Your task to perform on an android device: Open Youtube and go to the subscriptions tab Image 0: 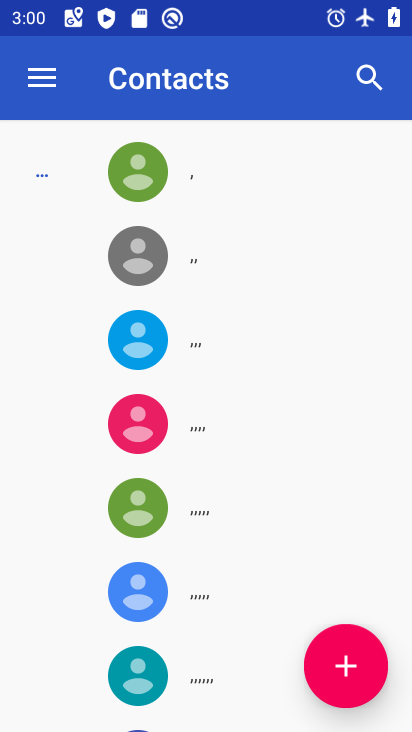
Step 0: press home button
Your task to perform on an android device: Open Youtube and go to the subscriptions tab Image 1: 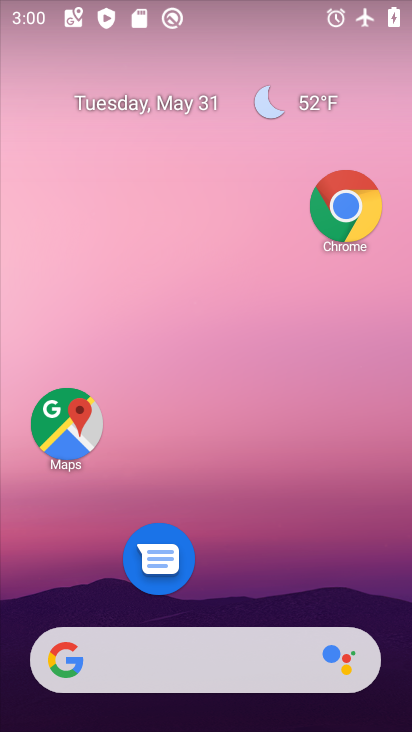
Step 1: drag from (262, 591) to (204, 150)
Your task to perform on an android device: Open Youtube and go to the subscriptions tab Image 2: 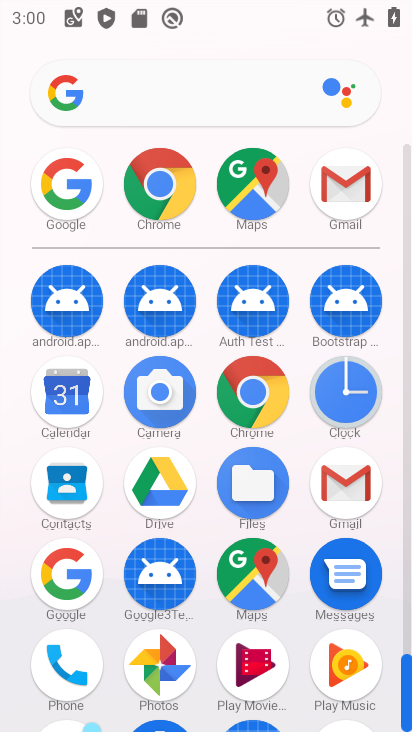
Step 2: drag from (201, 269) to (210, 102)
Your task to perform on an android device: Open Youtube and go to the subscriptions tab Image 3: 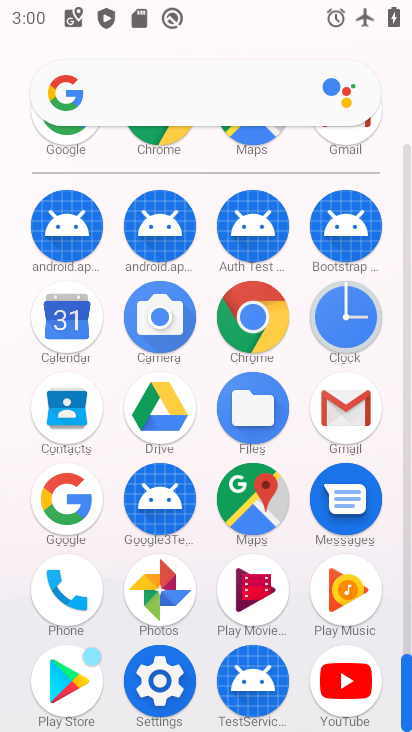
Step 3: click (357, 689)
Your task to perform on an android device: Open Youtube and go to the subscriptions tab Image 4: 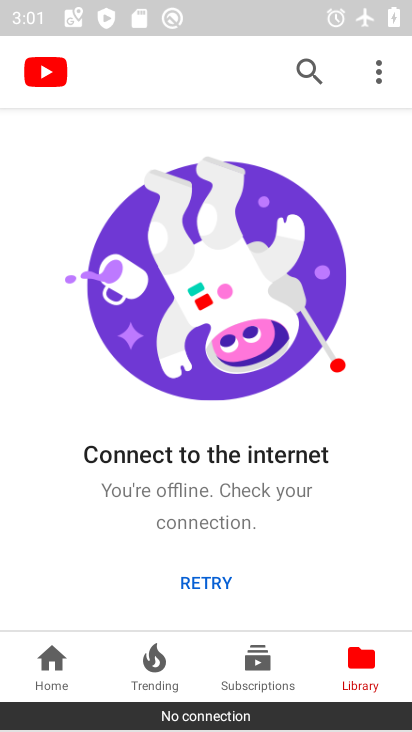
Step 4: click (264, 675)
Your task to perform on an android device: Open Youtube and go to the subscriptions tab Image 5: 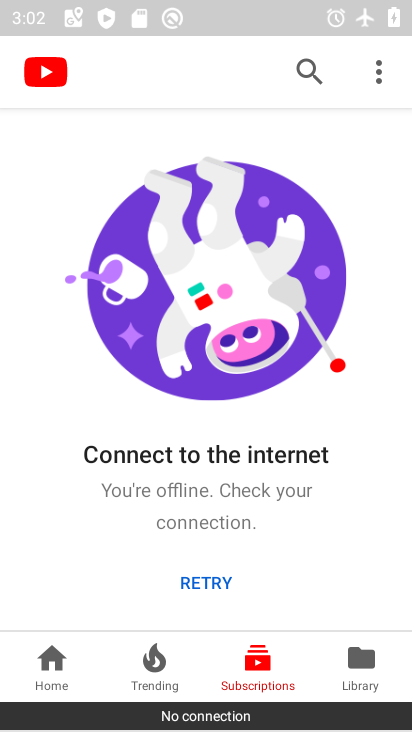
Step 5: task complete